Your task to perform on an android device: Open CNN.com Image 0: 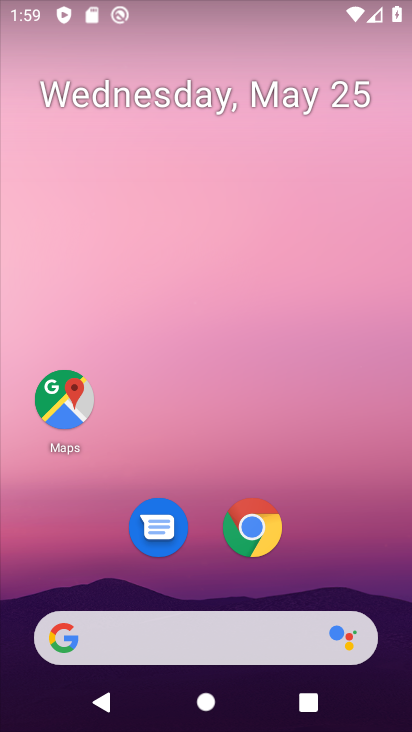
Step 0: click (253, 526)
Your task to perform on an android device: Open CNN.com Image 1: 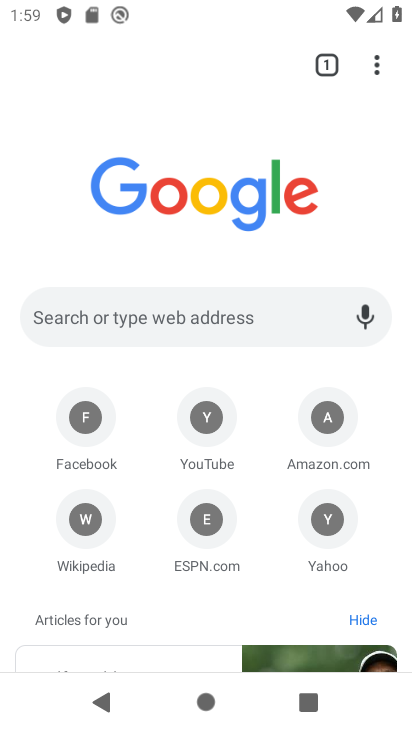
Step 1: click (115, 318)
Your task to perform on an android device: Open CNN.com Image 2: 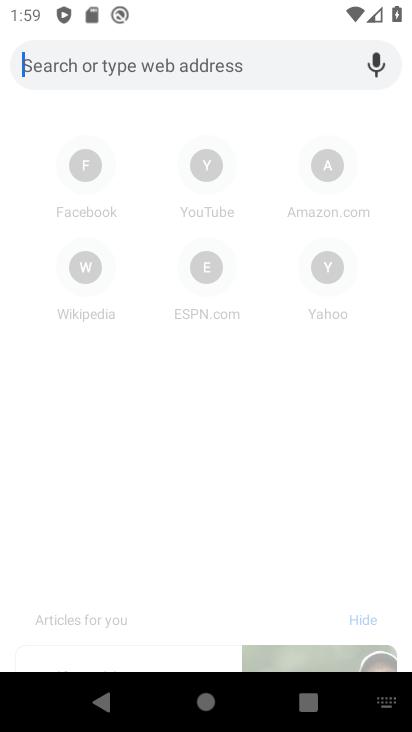
Step 2: type "cnn.com"
Your task to perform on an android device: Open CNN.com Image 3: 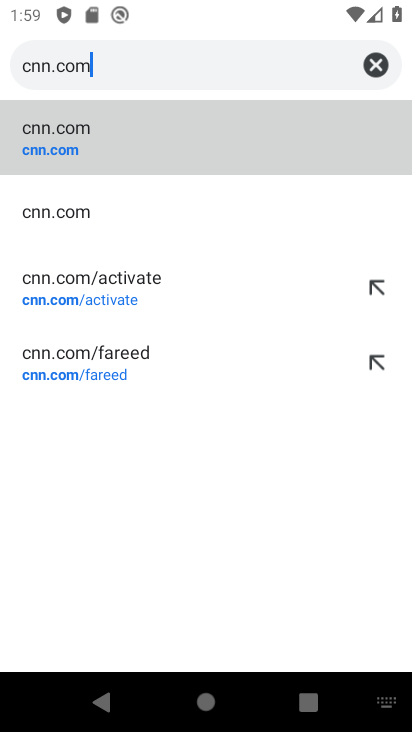
Step 3: click (126, 136)
Your task to perform on an android device: Open CNN.com Image 4: 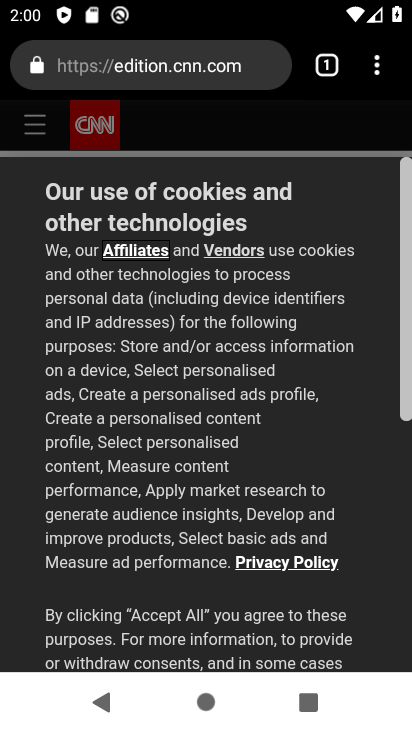
Step 4: task complete